Your task to perform on an android device: Go to Wikipedia Image 0: 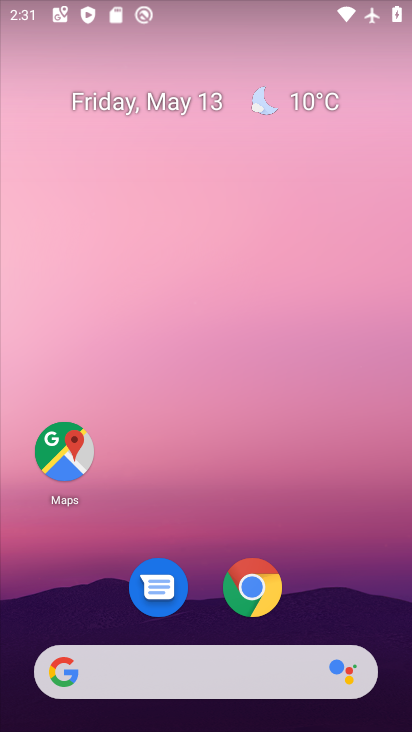
Step 0: click (243, 585)
Your task to perform on an android device: Go to Wikipedia Image 1: 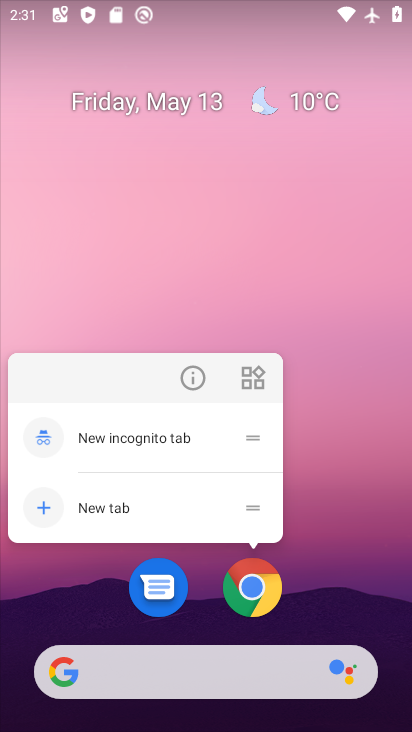
Step 1: click (243, 585)
Your task to perform on an android device: Go to Wikipedia Image 2: 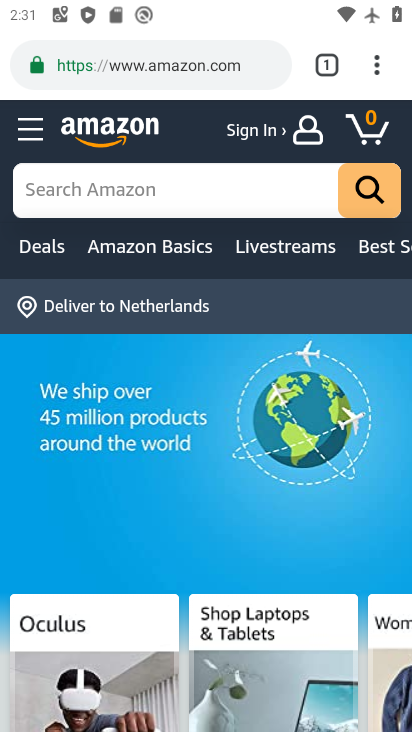
Step 2: click (187, 59)
Your task to perform on an android device: Go to Wikipedia Image 3: 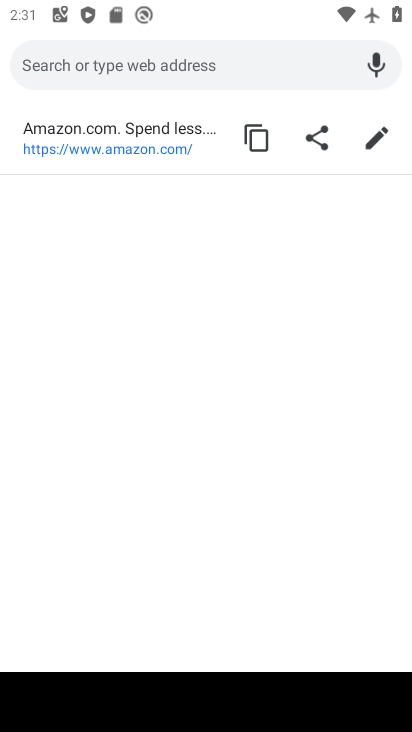
Step 3: type "wikipedia"
Your task to perform on an android device: Go to Wikipedia Image 4: 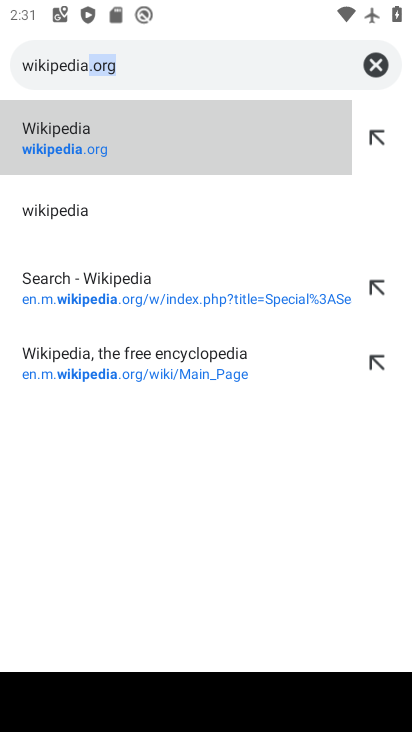
Step 4: click (123, 138)
Your task to perform on an android device: Go to Wikipedia Image 5: 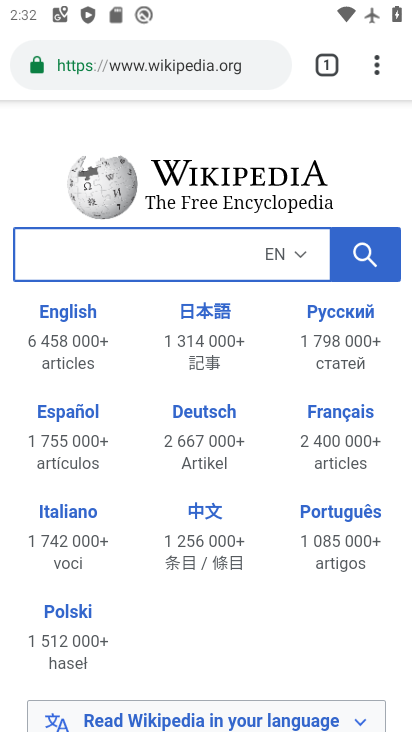
Step 5: task complete